Your task to perform on an android device: empty trash in the gmail app Image 0: 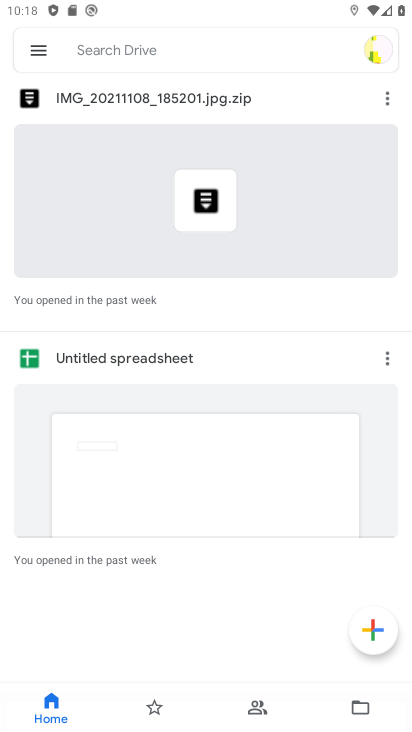
Step 0: press home button
Your task to perform on an android device: empty trash in the gmail app Image 1: 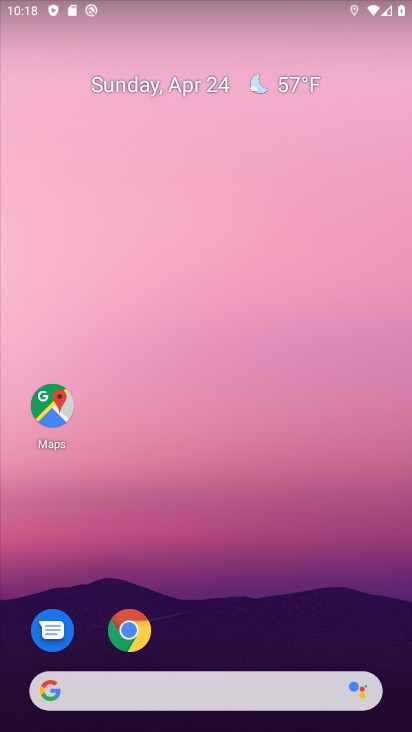
Step 1: drag from (208, 576) to (165, 43)
Your task to perform on an android device: empty trash in the gmail app Image 2: 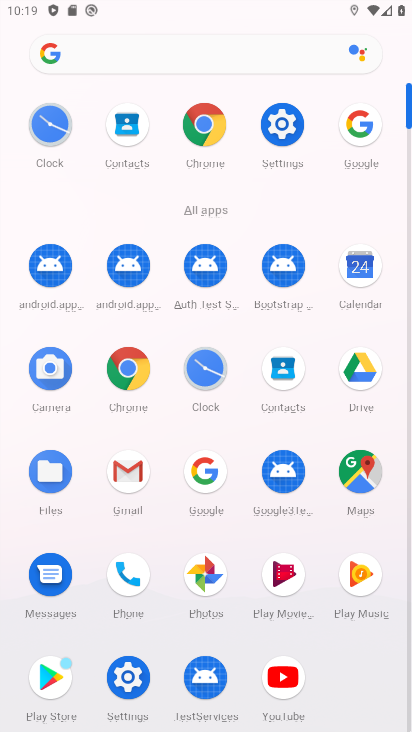
Step 2: click (129, 471)
Your task to perform on an android device: empty trash in the gmail app Image 3: 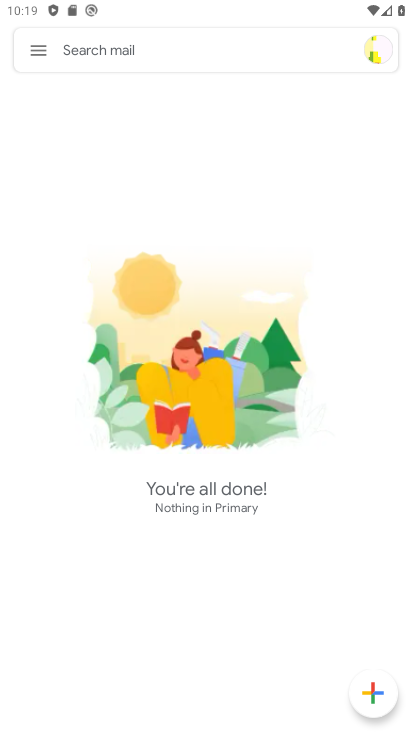
Step 3: click (41, 54)
Your task to perform on an android device: empty trash in the gmail app Image 4: 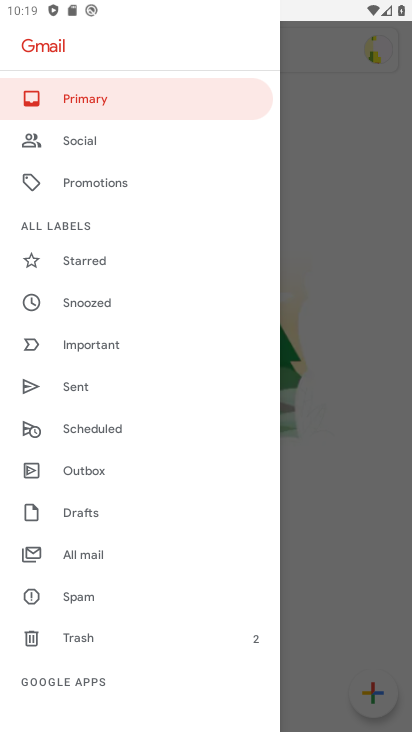
Step 4: click (71, 637)
Your task to perform on an android device: empty trash in the gmail app Image 5: 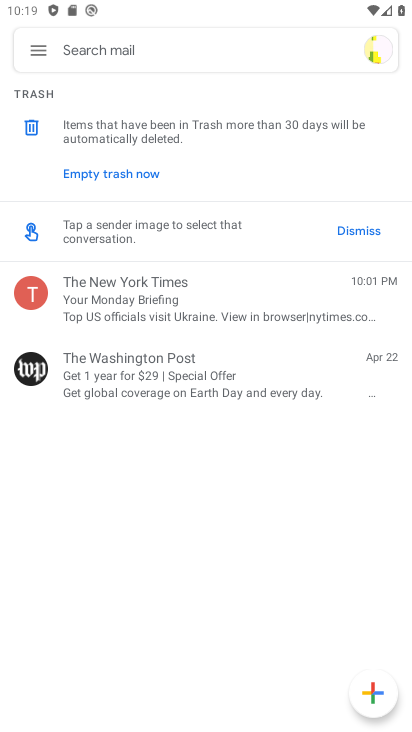
Step 5: click (142, 177)
Your task to perform on an android device: empty trash in the gmail app Image 6: 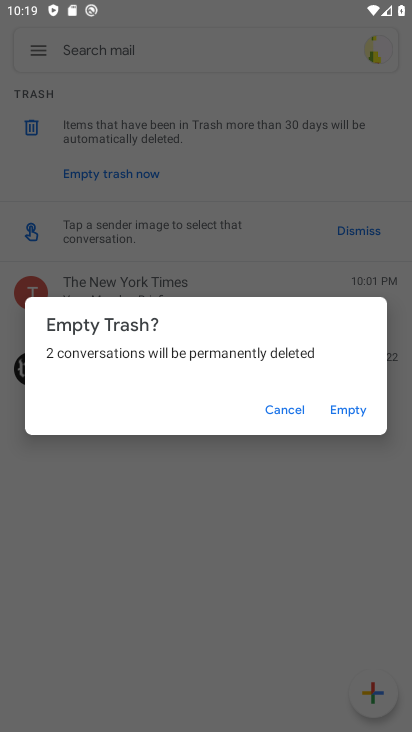
Step 6: click (351, 410)
Your task to perform on an android device: empty trash in the gmail app Image 7: 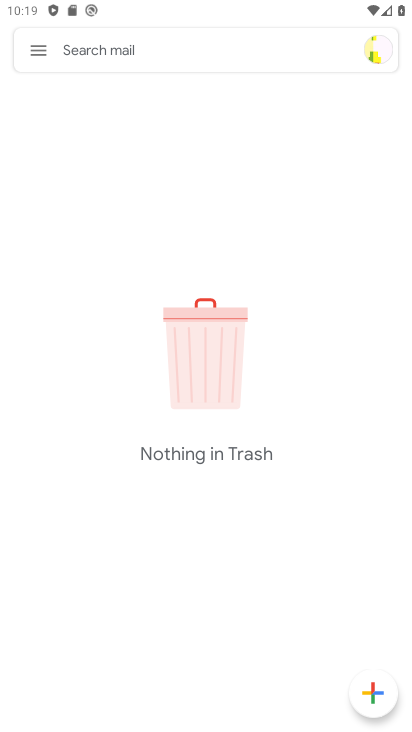
Step 7: task complete